Your task to perform on an android device: Open Chrome and go to the settings page Image 0: 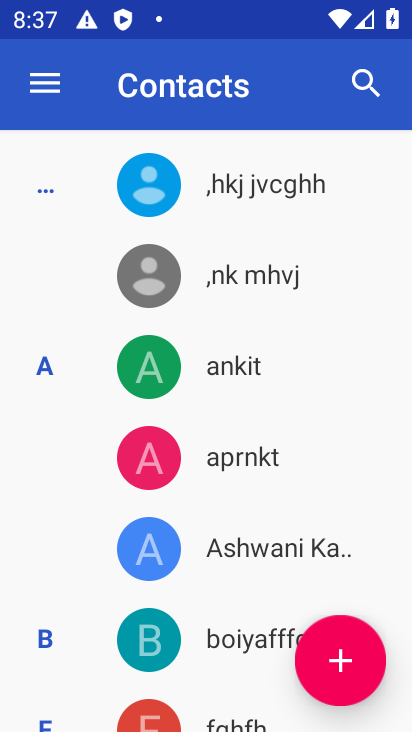
Step 0: press home button
Your task to perform on an android device: Open Chrome and go to the settings page Image 1: 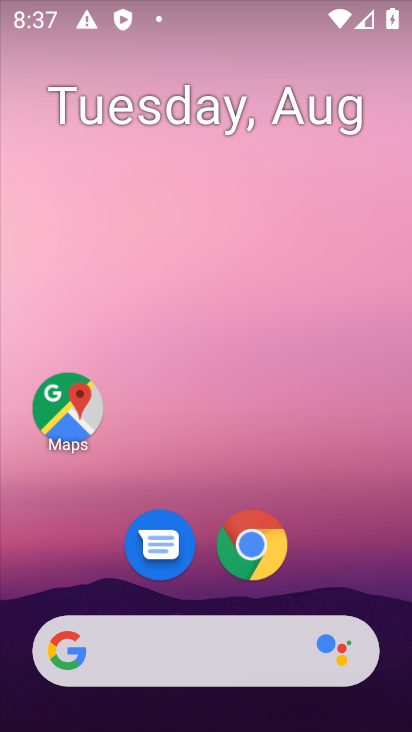
Step 1: click (254, 537)
Your task to perform on an android device: Open Chrome and go to the settings page Image 2: 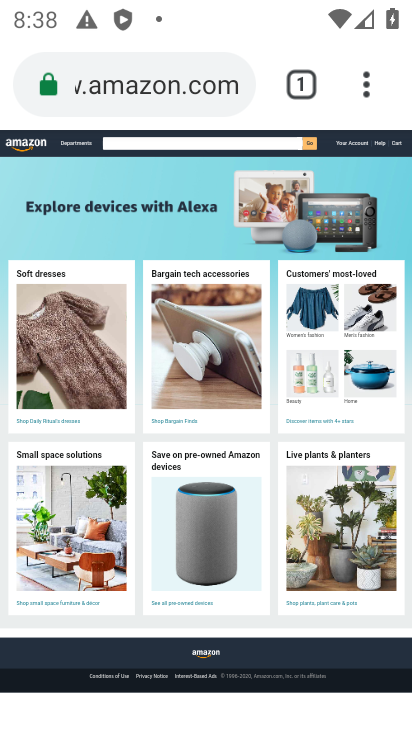
Step 2: click (369, 81)
Your task to perform on an android device: Open Chrome and go to the settings page Image 3: 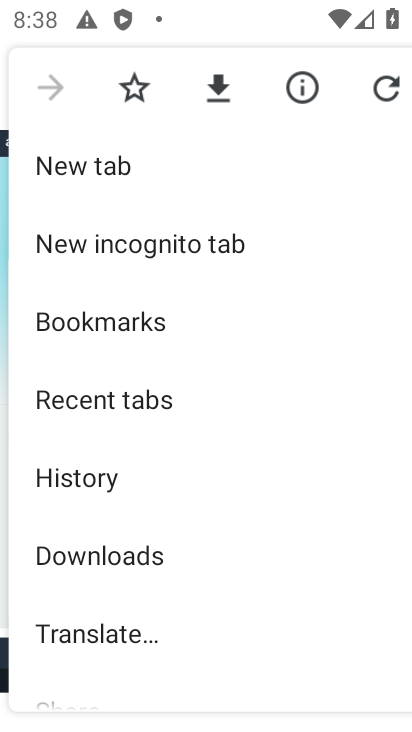
Step 3: drag from (25, 545) to (258, 149)
Your task to perform on an android device: Open Chrome and go to the settings page Image 4: 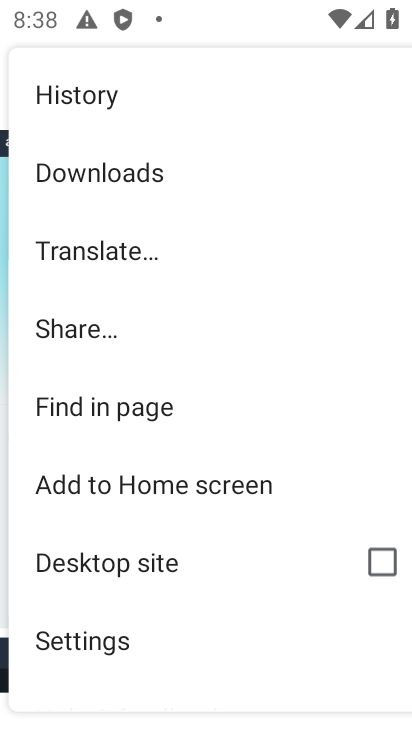
Step 4: click (83, 640)
Your task to perform on an android device: Open Chrome and go to the settings page Image 5: 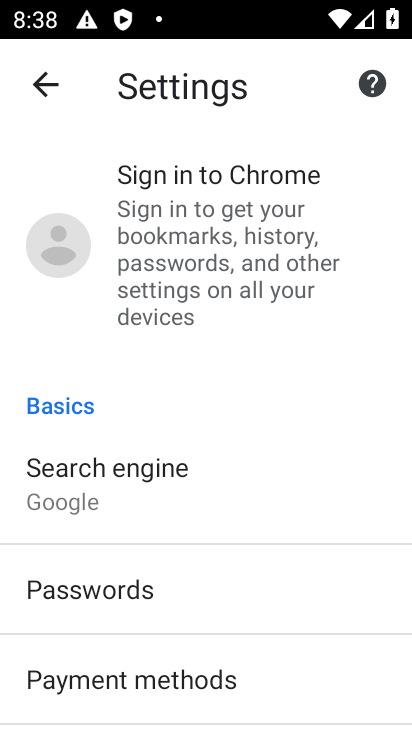
Step 5: task complete